Your task to perform on an android device: choose inbox layout in the gmail app Image 0: 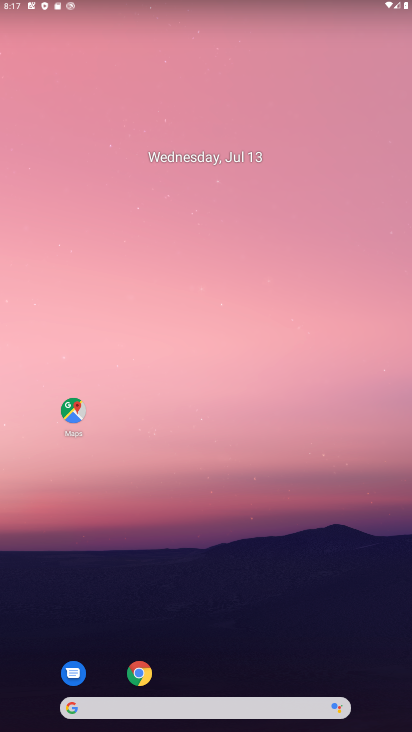
Step 0: drag from (325, 607) to (355, 92)
Your task to perform on an android device: choose inbox layout in the gmail app Image 1: 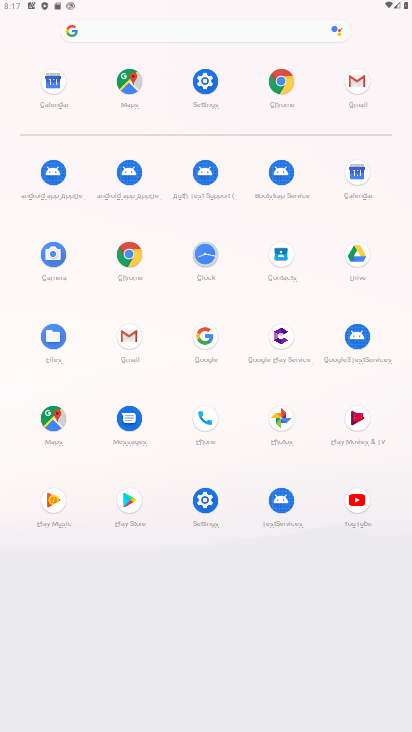
Step 1: click (352, 78)
Your task to perform on an android device: choose inbox layout in the gmail app Image 2: 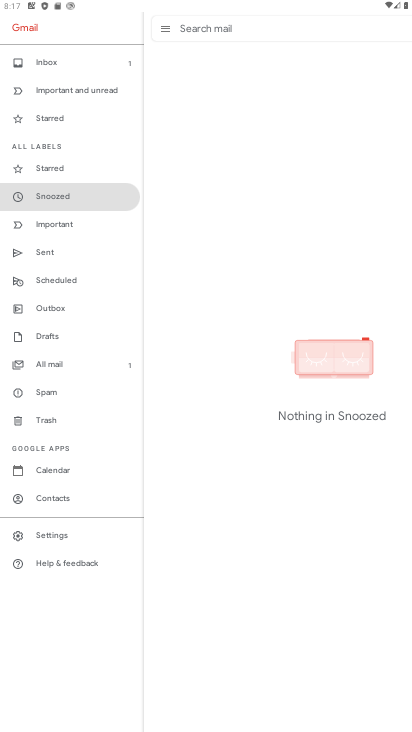
Step 2: click (60, 534)
Your task to perform on an android device: choose inbox layout in the gmail app Image 3: 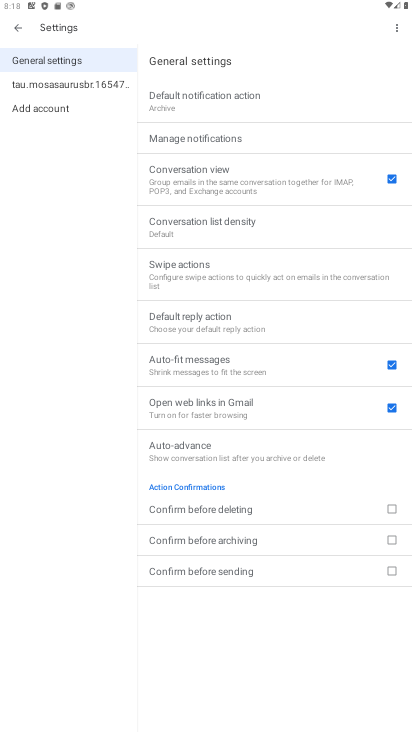
Step 3: click (98, 91)
Your task to perform on an android device: choose inbox layout in the gmail app Image 4: 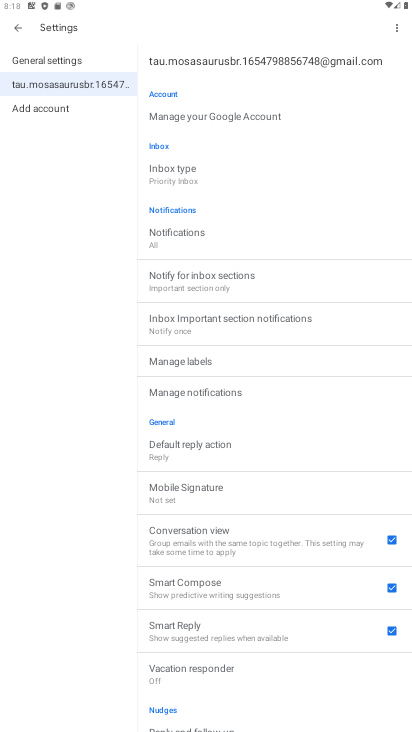
Step 4: click (164, 179)
Your task to perform on an android device: choose inbox layout in the gmail app Image 5: 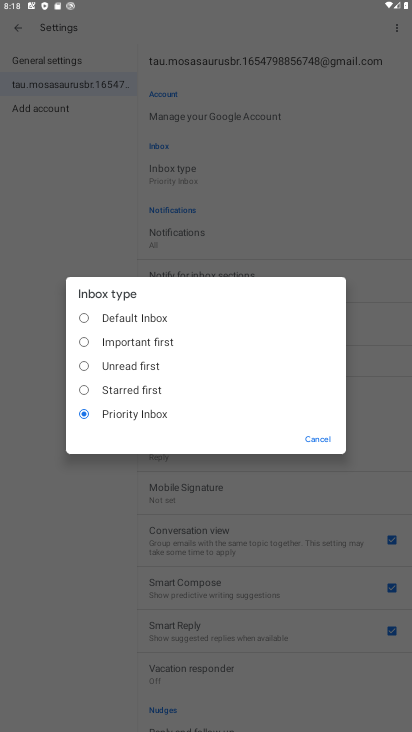
Step 5: task complete